Your task to perform on an android device: choose inbox layout in the gmail app Image 0: 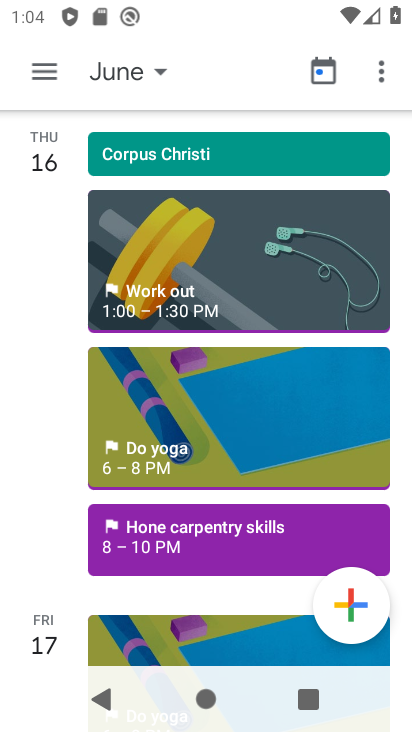
Step 0: press home button
Your task to perform on an android device: choose inbox layout in the gmail app Image 1: 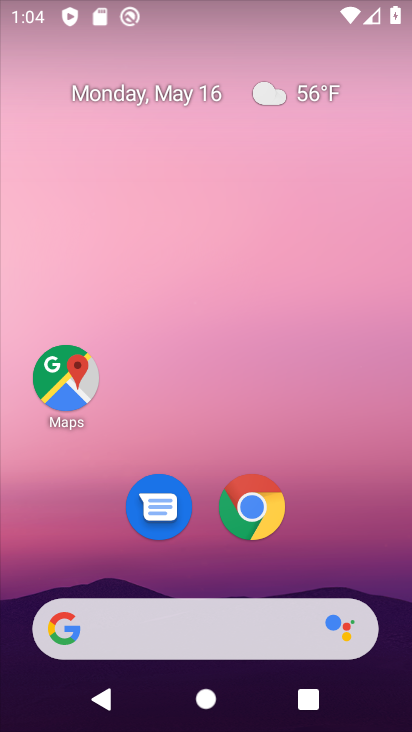
Step 1: drag from (212, 571) to (226, 193)
Your task to perform on an android device: choose inbox layout in the gmail app Image 2: 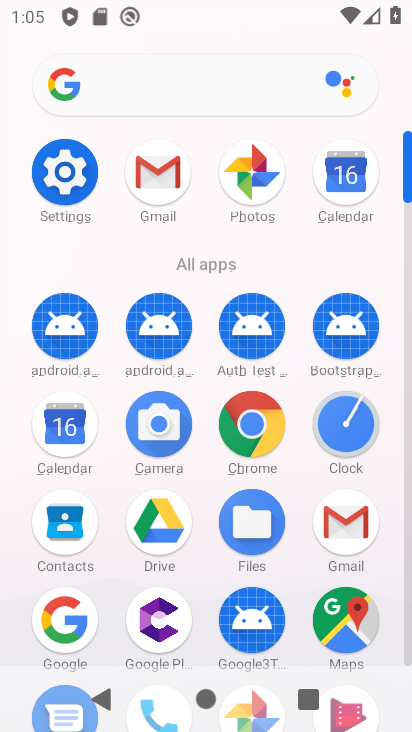
Step 2: click (175, 173)
Your task to perform on an android device: choose inbox layout in the gmail app Image 3: 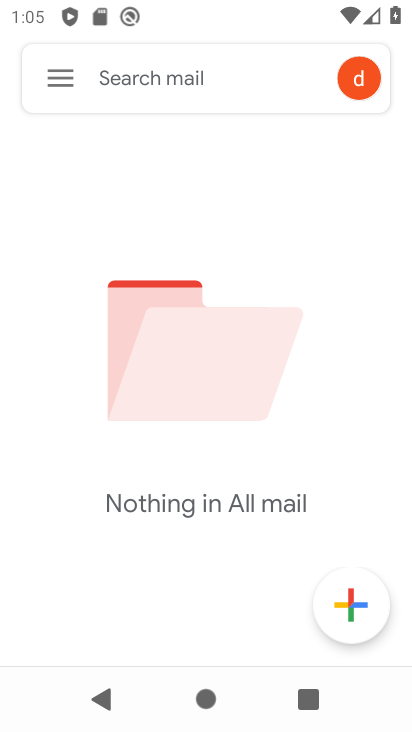
Step 3: click (59, 78)
Your task to perform on an android device: choose inbox layout in the gmail app Image 4: 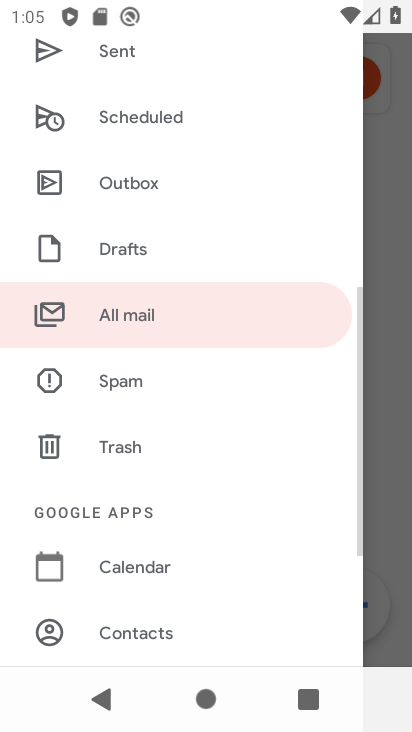
Step 4: drag from (145, 551) to (190, 256)
Your task to perform on an android device: choose inbox layout in the gmail app Image 5: 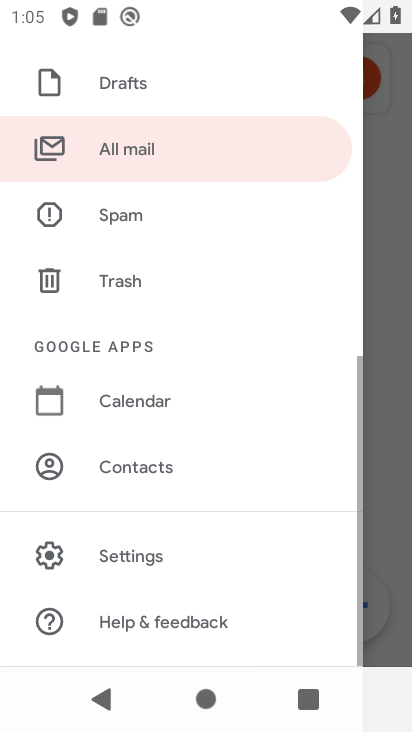
Step 5: click (115, 542)
Your task to perform on an android device: choose inbox layout in the gmail app Image 6: 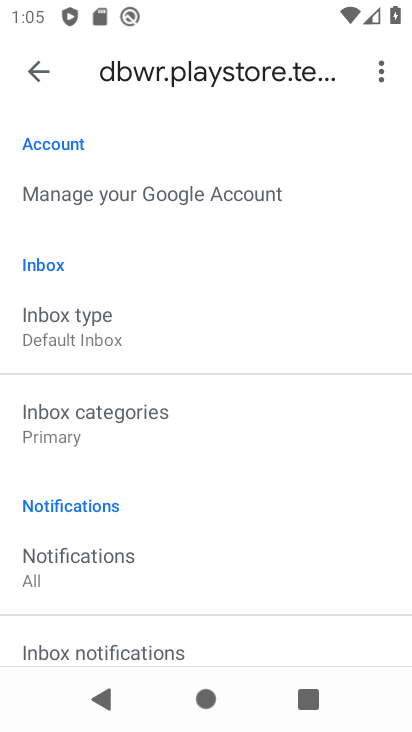
Step 6: click (135, 333)
Your task to perform on an android device: choose inbox layout in the gmail app Image 7: 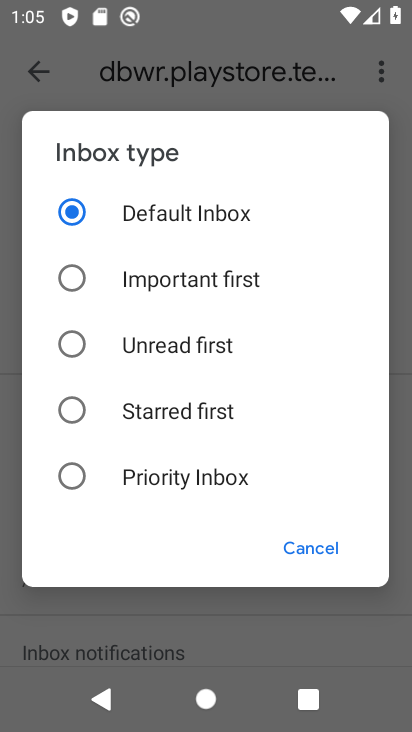
Step 7: click (150, 465)
Your task to perform on an android device: choose inbox layout in the gmail app Image 8: 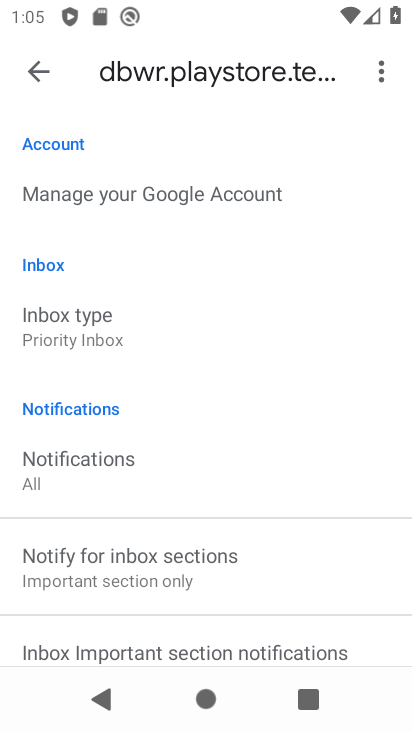
Step 8: task complete